Your task to perform on an android device: turn off airplane mode Image 0: 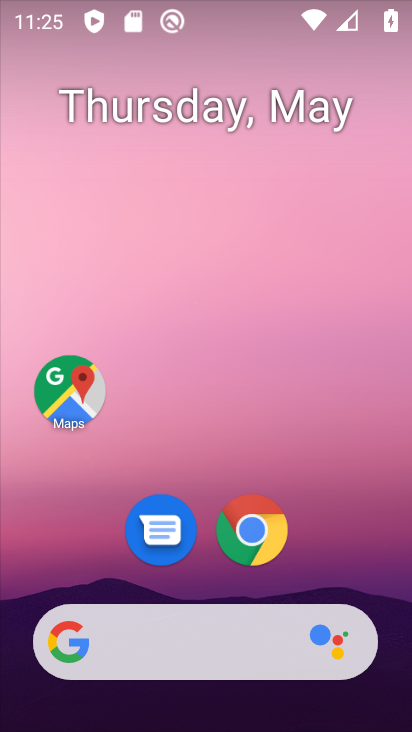
Step 0: drag from (305, 580) to (294, 28)
Your task to perform on an android device: turn off airplane mode Image 1: 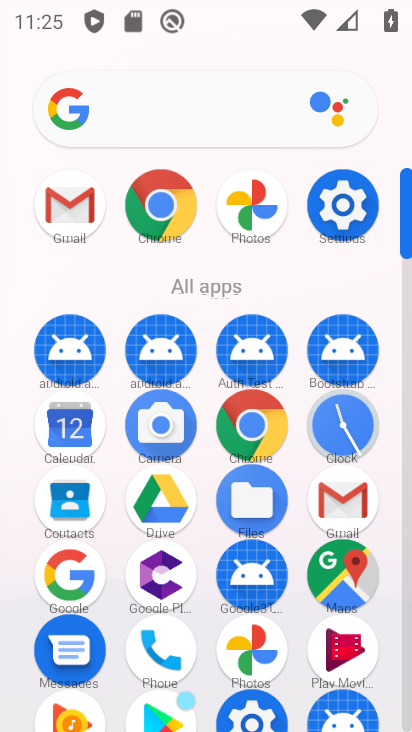
Step 1: click (344, 203)
Your task to perform on an android device: turn off airplane mode Image 2: 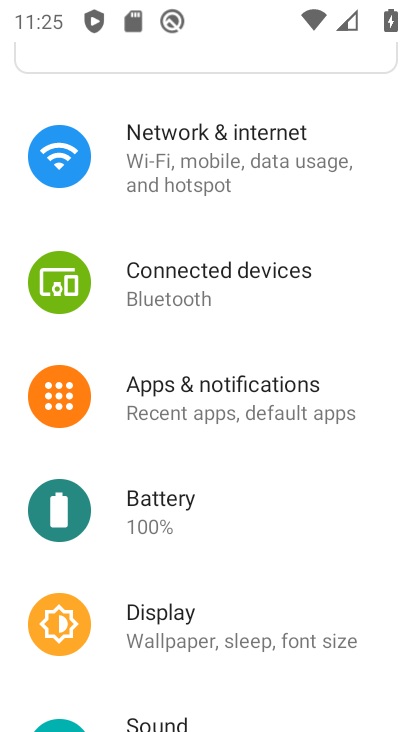
Step 2: click (212, 173)
Your task to perform on an android device: turn off airplane mode Image 3: 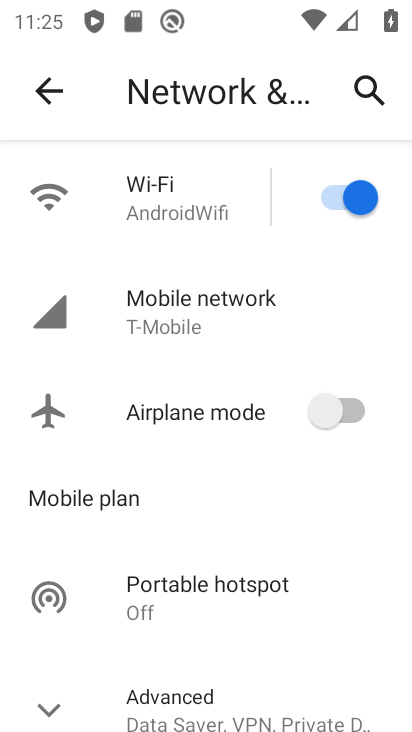
Step 3: task complete